Your task to perform on an android device: open app "Viber Messenger" Image 0: 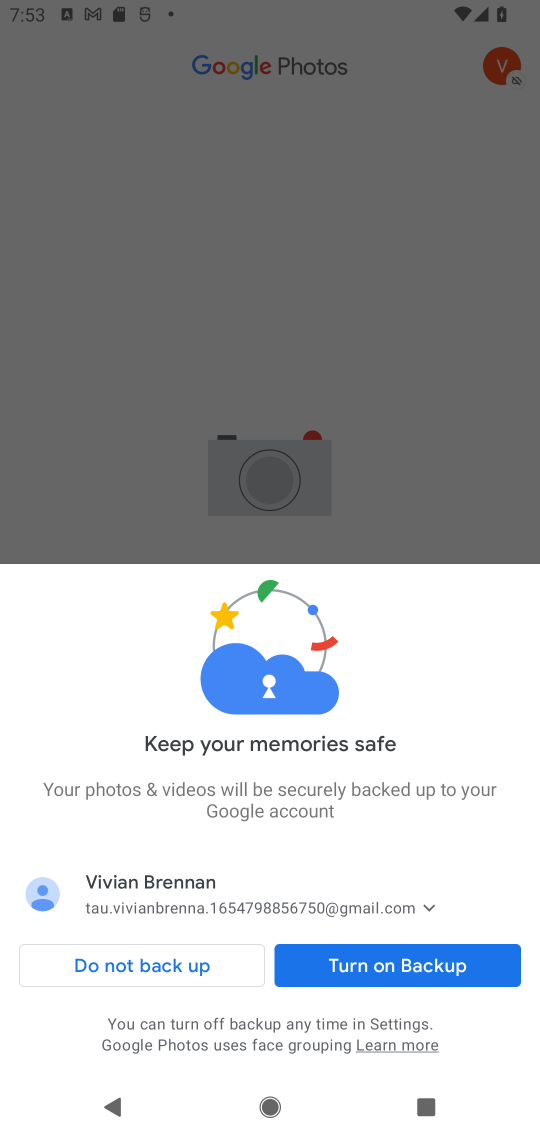
Step 0: press back button
Your task to perform on an android device: open app "Viber Messenger" Image 1: 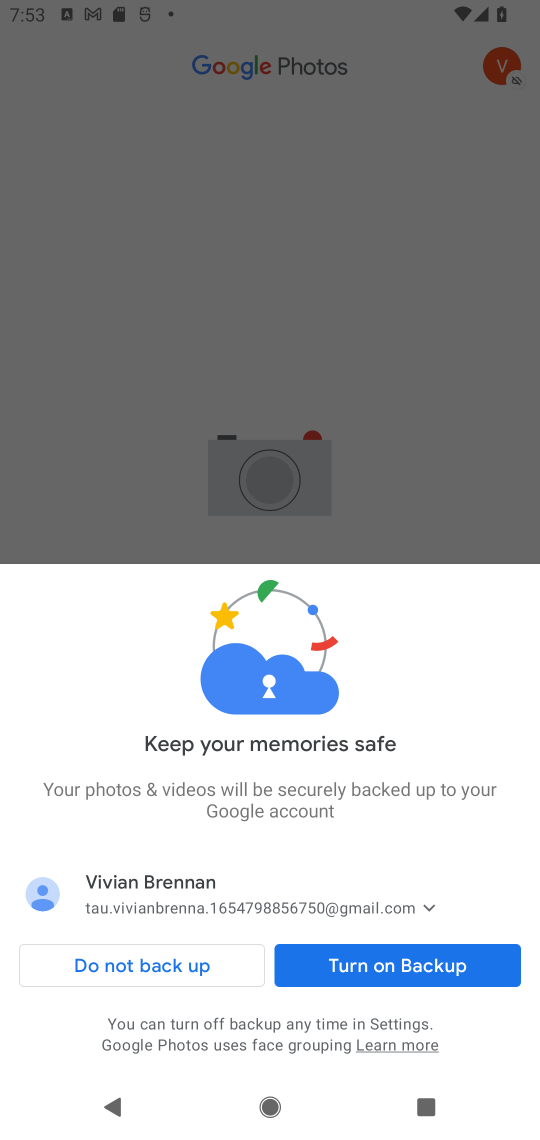
Step 1: press back button
Your task to perform on an android device: open app "Viber Messenger" Image 2: 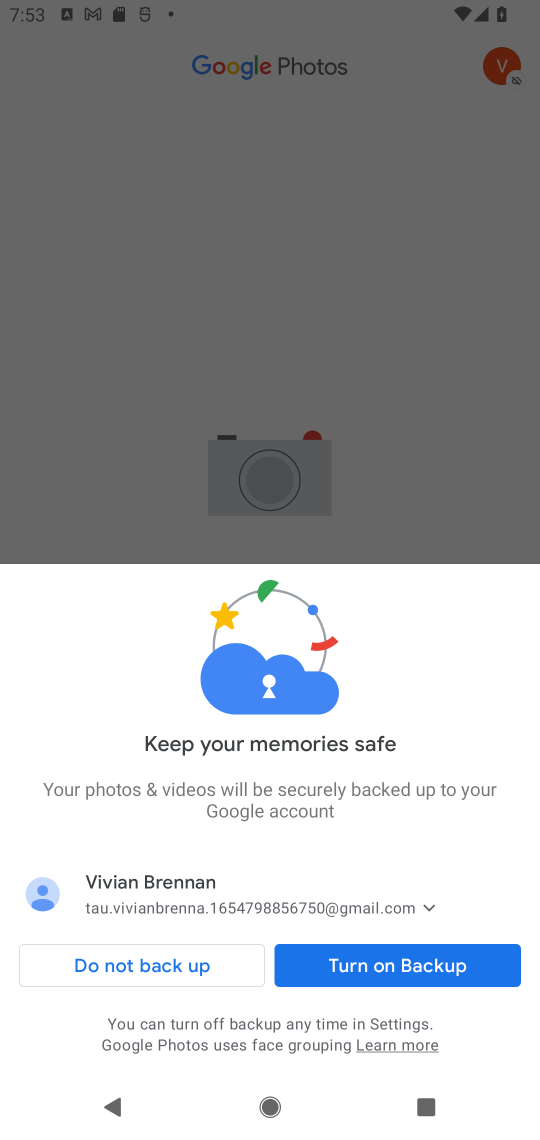
Step 2: press home button
Your task to perform on an android device: open app "Viber Messenger" Image 3: 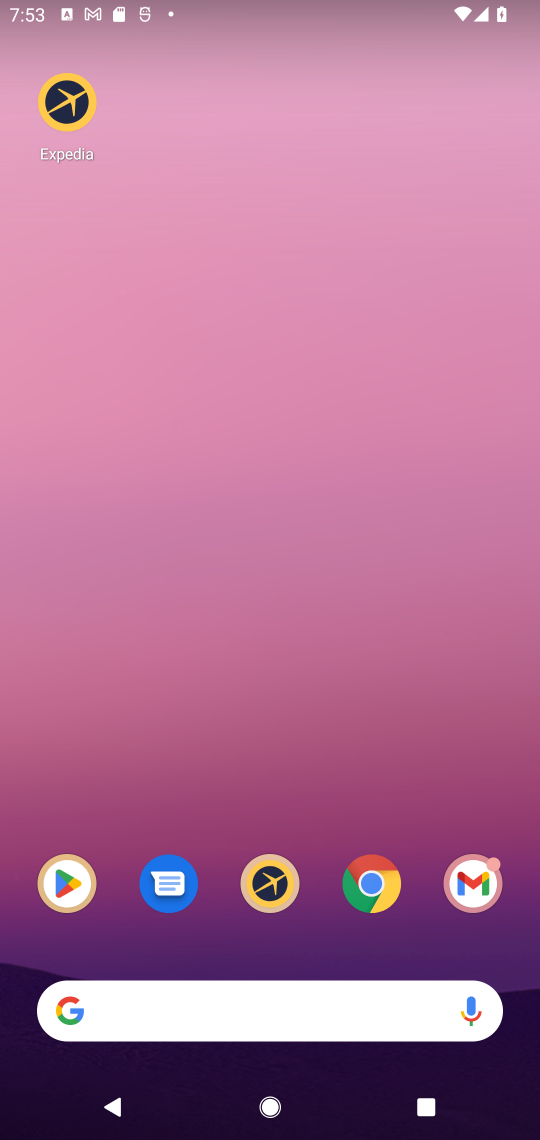
Step 3: click (50, 887)
Your task to perform on an android device: open app "Viber Messenger" Image 4: 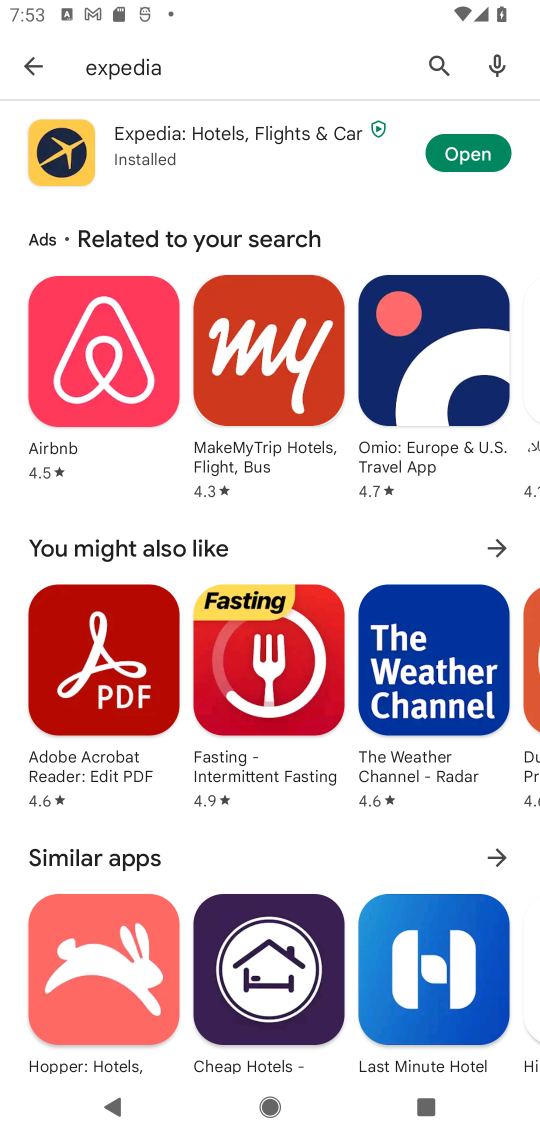
Step 4: click (437, 82)
Your task to perform on an android device: open app "Viber Messenger" Image 5: 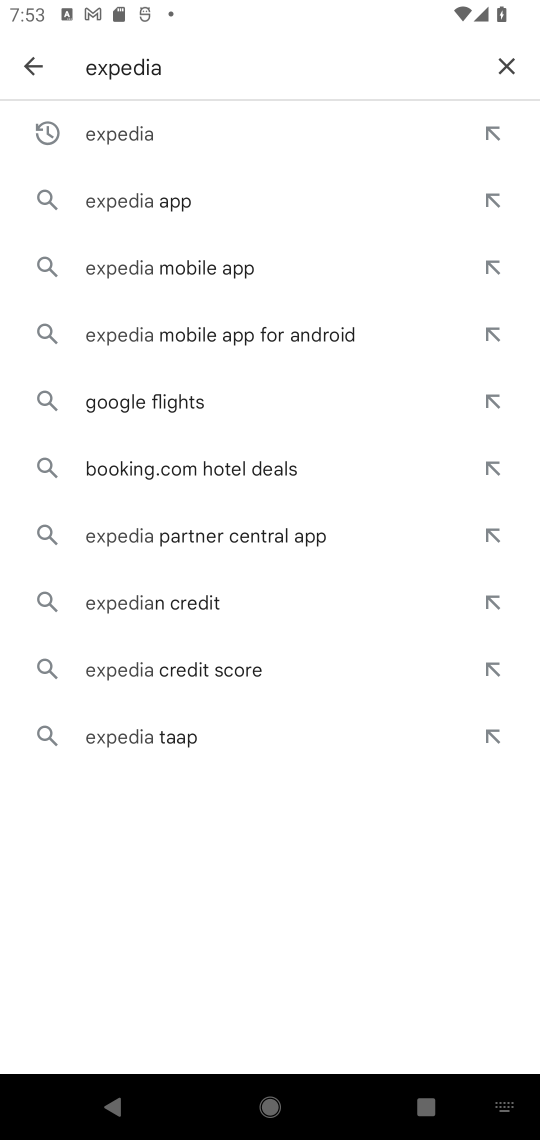
Step 5: click (509, 62)
Your task to perform on an android device: open app "Viber Messenger" Image 6: 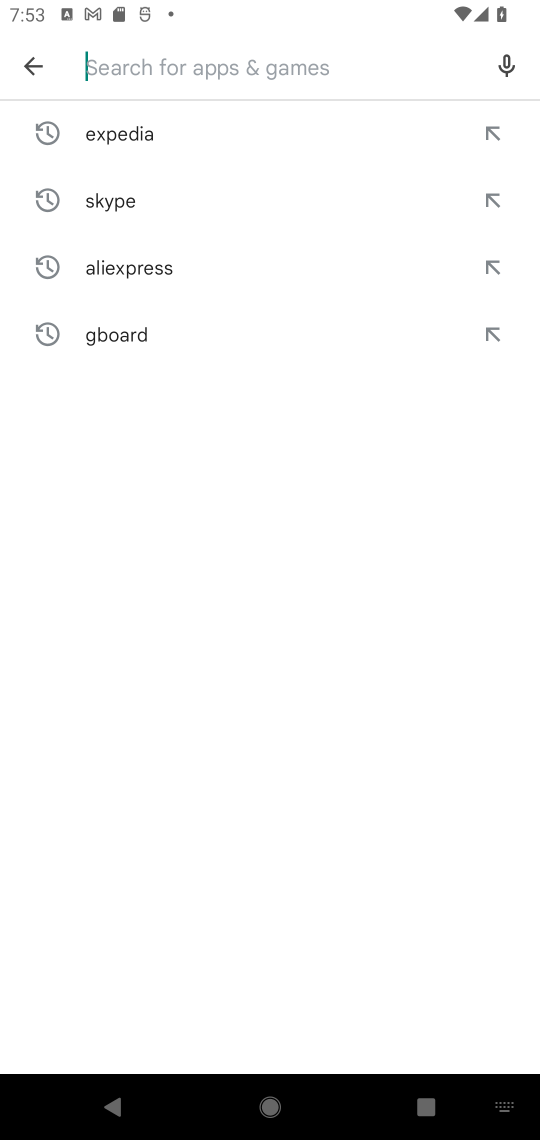
Step 6: click (191, 60)
Your task to perform on an android device: open app "Viber Messenger" Image 7: 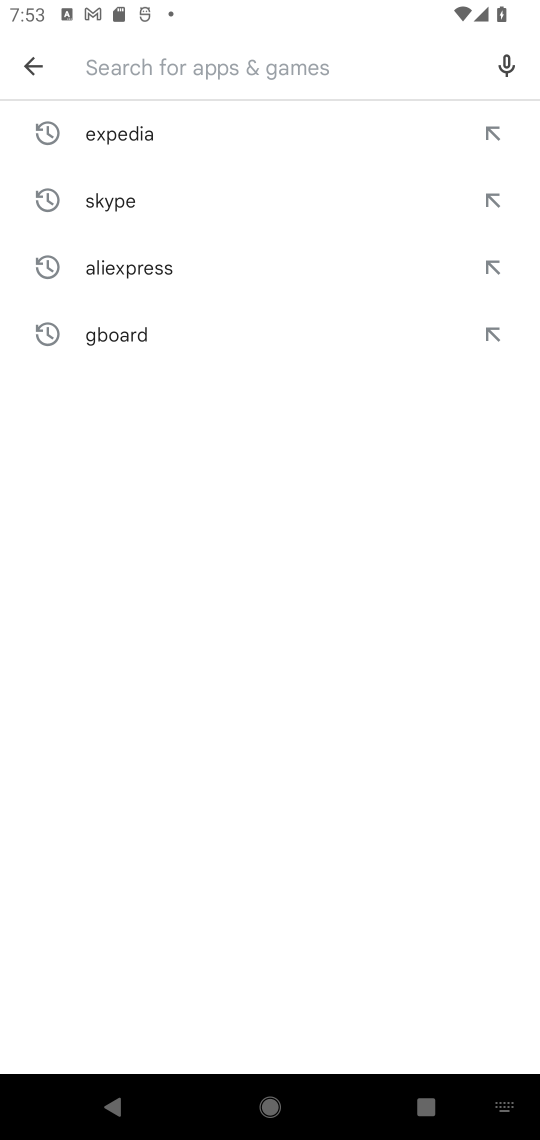
Step 7: type "viber messenger"
Your task to perform on an android device: open app "Viber Messenger" Image 8: 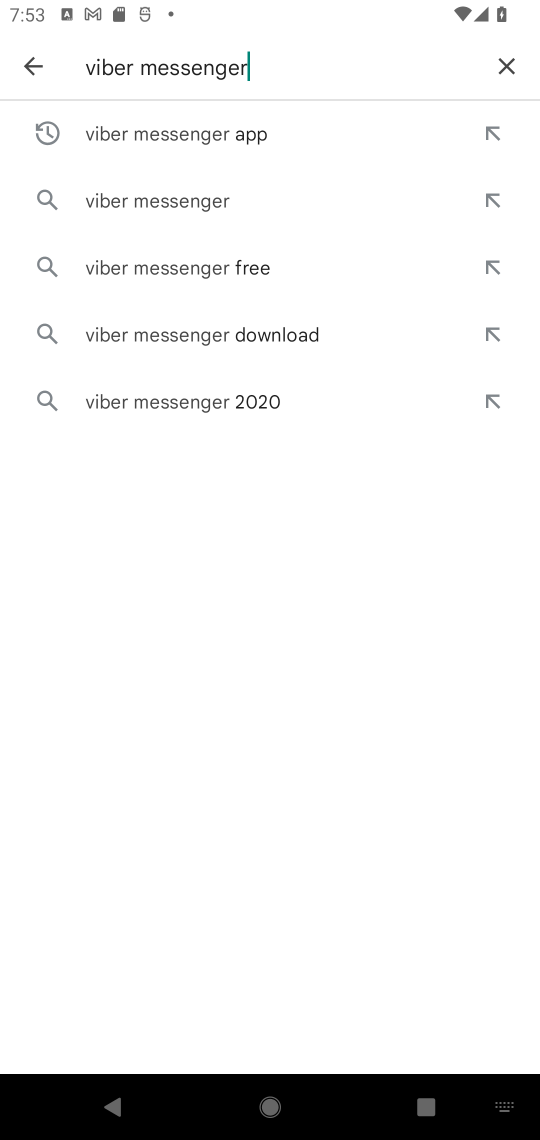
Step 8: click (235, 137)
Your task to perform on an android device: open app "Viber Messenger" Image 9: 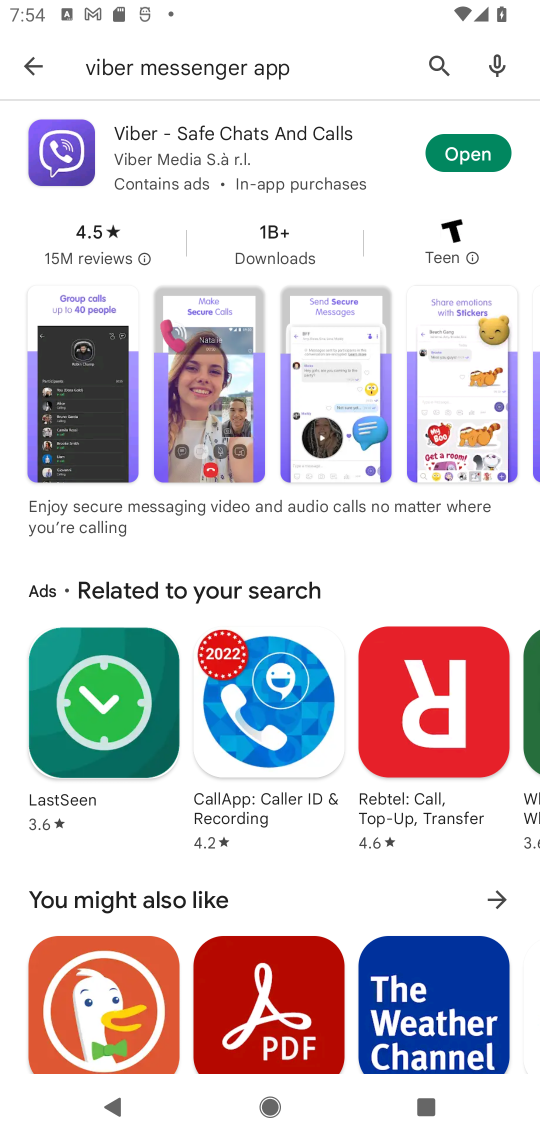
Step 9: click (459, 153)
Your task to perform on an android device: open app "Viber Messenger" Image 10: 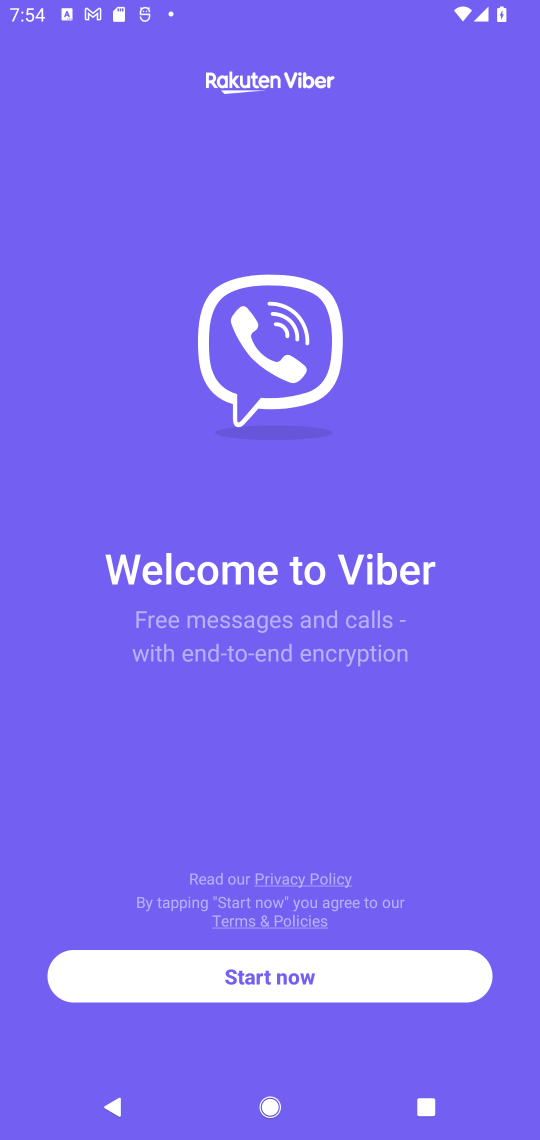
Step 10: task complete